Your task to perform on an android device: Open the phone app and click the voicemail tab. Image 0: 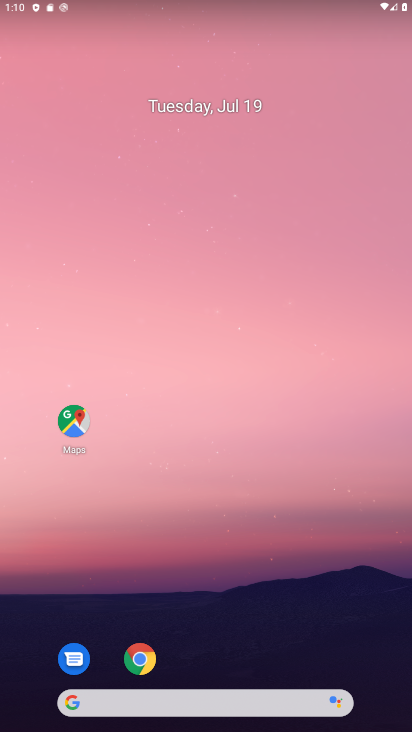
Step 0: drag from (388, 719) to (316, 29)
Your task to perform on an android device: Open the phone app and click the voicemail tab. Image 1: 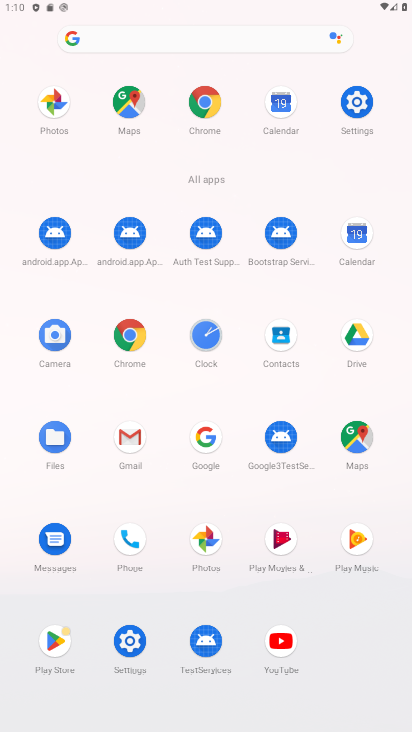
Step 1: click (129, 543)
Your task to perform on an android device: Open the phone app and click the voicemail tab. Image 2: 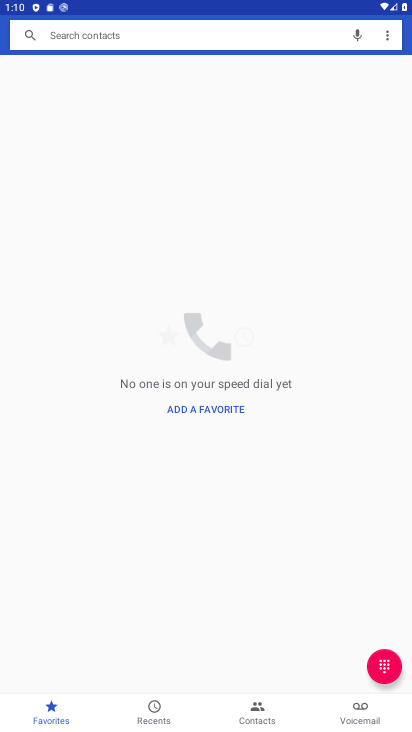
Step 2: click (386, 724)
Your task to perform on an android device: Open the phone app and click the voicemail tab. Image 3: 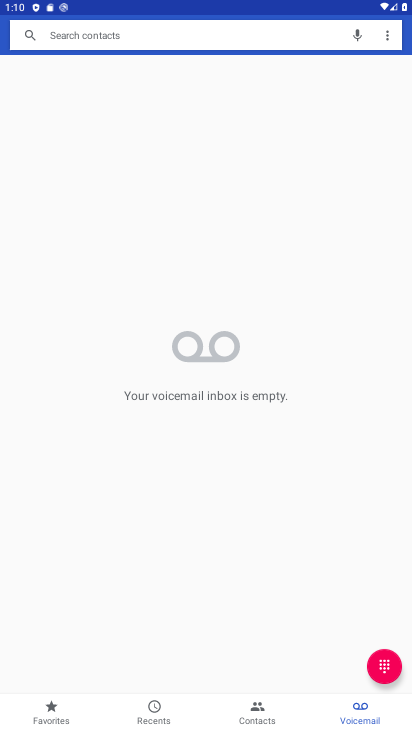
Step 3: task complete